Your task to perform on an android device: toggle pop-ups in chrome Image 0: 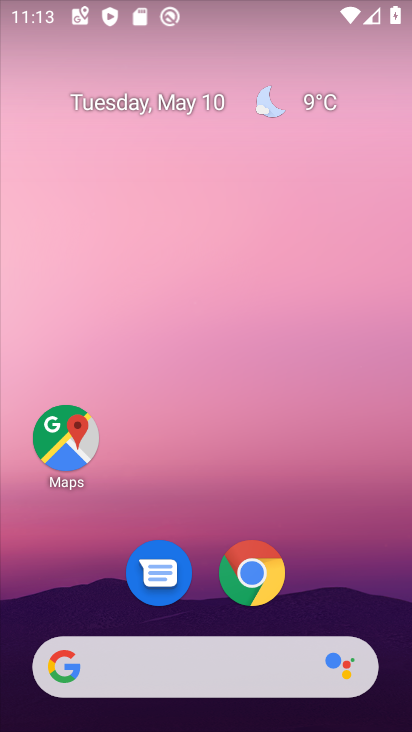
Step 0: click (249, 571)
Your task to perform on an android device: toggle pop-ups in chrome Image 1: 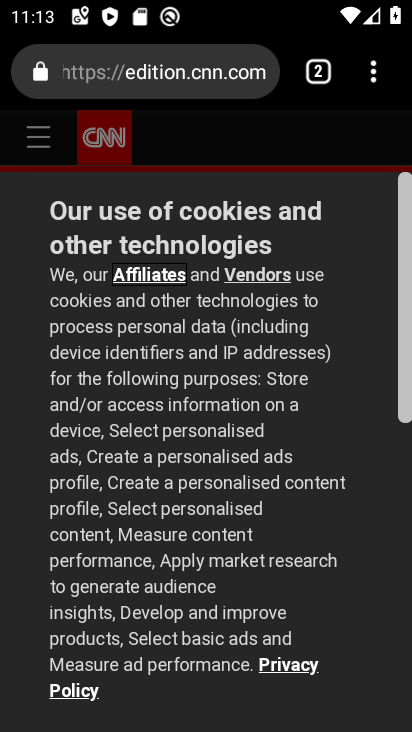
Step 1: click (375, 83)
Your task to perform on an android device: toggle pop-ups in chrome Image 2: 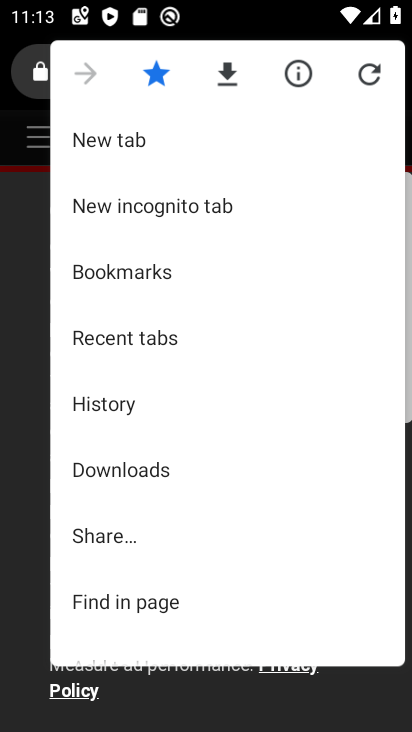
Step 2: drag from (160, 575) to (165, 239)
Your task to perform on an android device: toggle pop-ups in chrome Image 3: 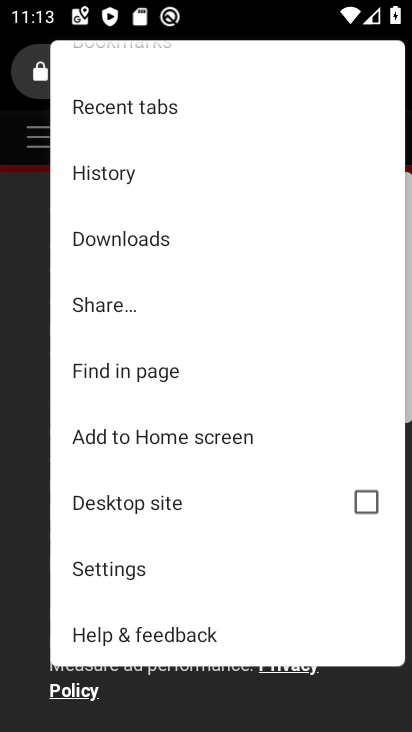
Step 3: click (116, 570)
Your task to perform on an android device: toggle pop-ups in chrome Image 4: 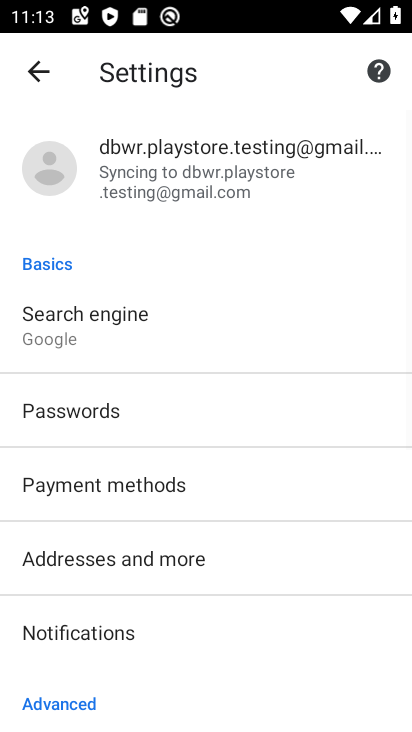
Step 4: drag from (185, 648) to (199, 309)
Your task to perform on an android device: toggle pop-ups in chrome Image 5: 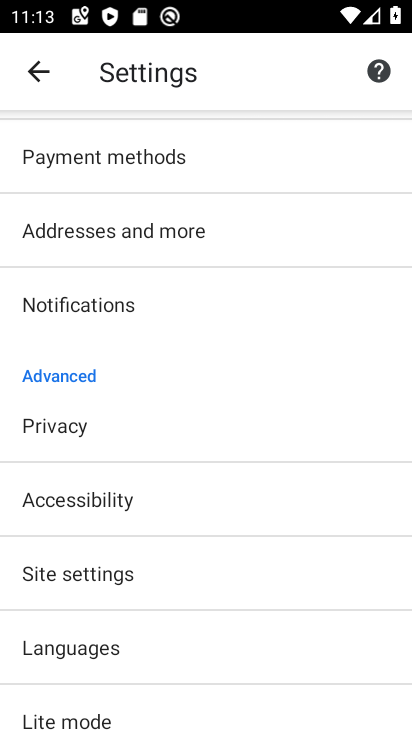
Step 5: click (98, 575)
Your task to perform on an android device: toggle pop-ups in chrome Image 6: 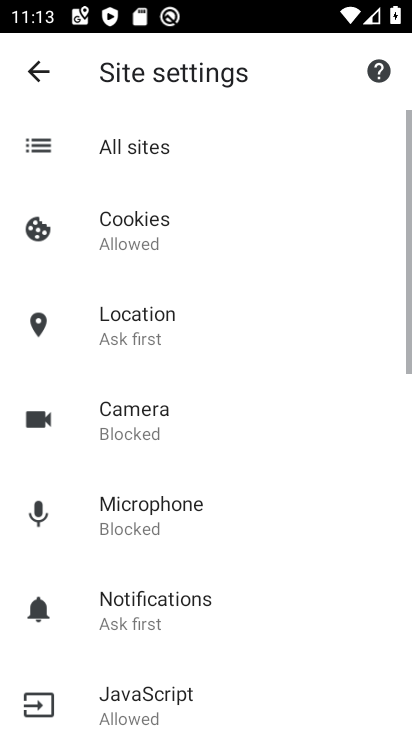
Step 6: drag from (147, 675) to (164, 270)
Your task to perform on an android device: toggle pop-ups in chrome Image 7: 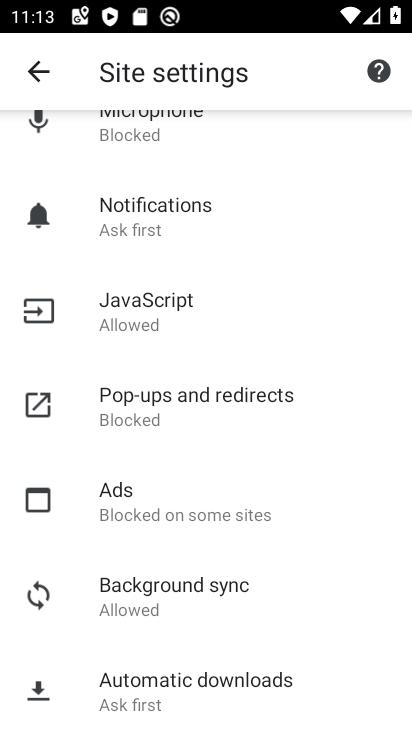
Step 7: click (140, 406)
Your task to perform on an android device: toggle pop-ups in chrome Image 8: 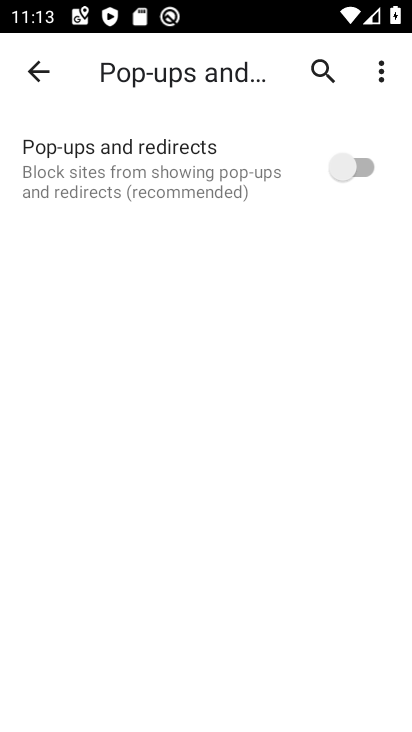
Step 8: click (365, 166)
Your task to perform on an android device: toggle pop-ups in chrome Image 9: 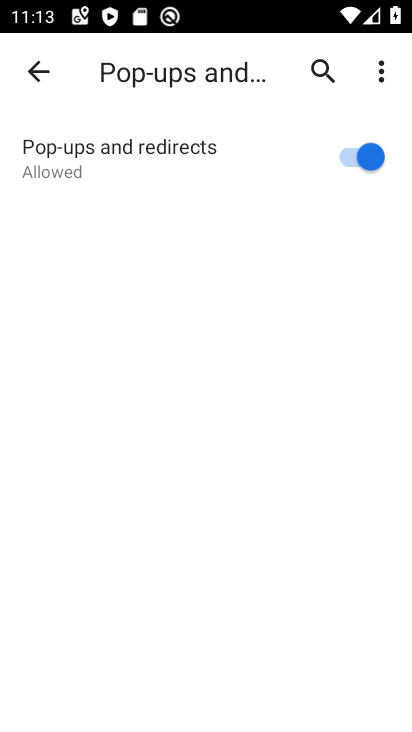
Step 9: task complete